Your task to perform on an android device: open chrome and create a bookmark for the current page Image 0: 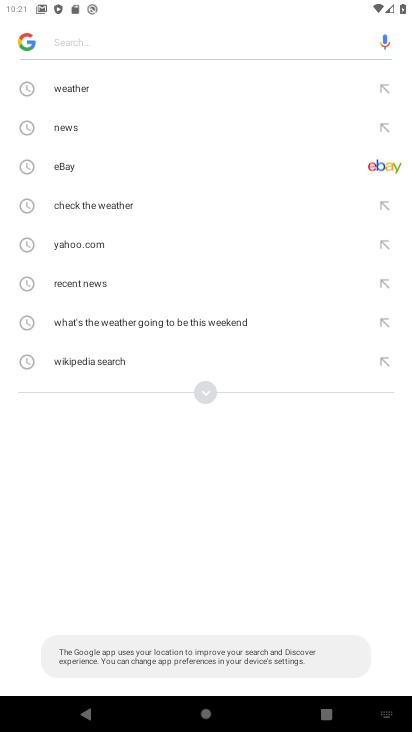
Step 0: press home button
Your task to perform on an android device: open chrome and create a bookmark for the current page Image 1: 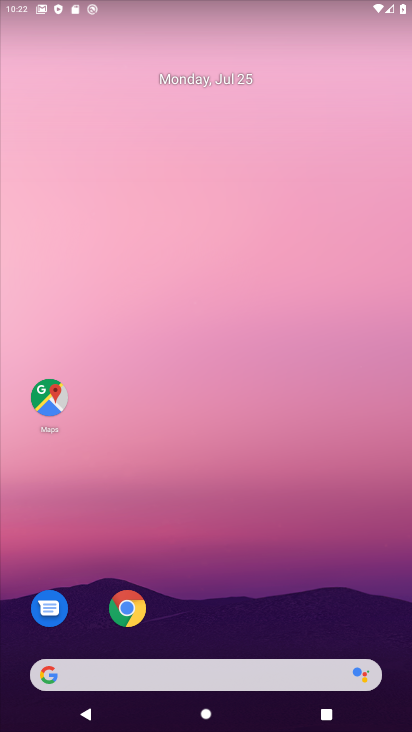
Step 1: click (136, 605)
Your task to perform on an android device: open chrome and create a bookmark for the current page Image 2: 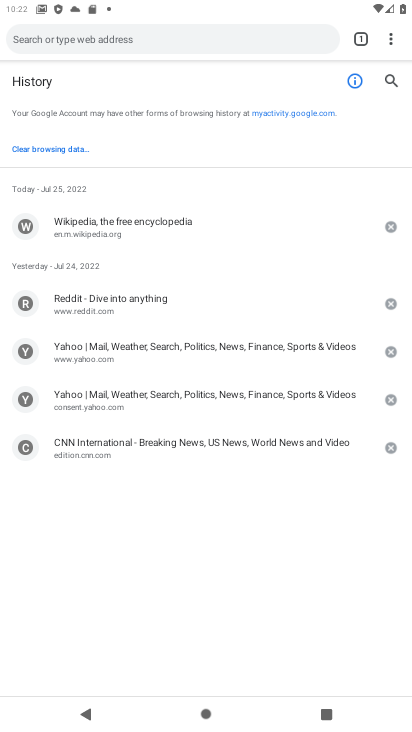
Step 2: click (390, 44)
Your task to perform on an android device: open chrome and create a bookmark for the current page Image 3: 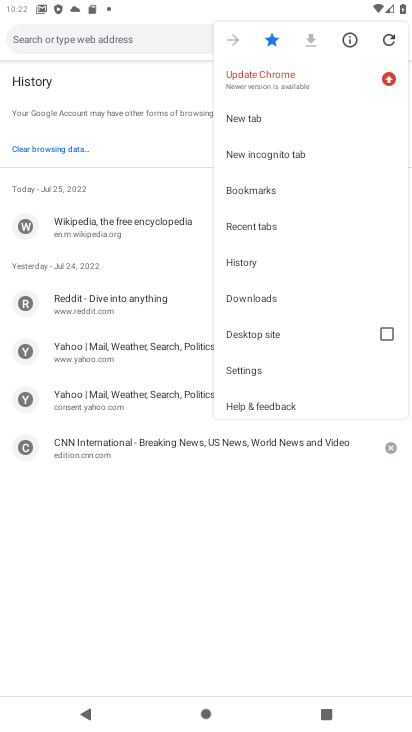
Step 3: task complete